Your task to perform on an android device: View the shopping cart on walmart. Search for bose soundlink on walmart, select the first entry, and add it to the cart. Image 0: 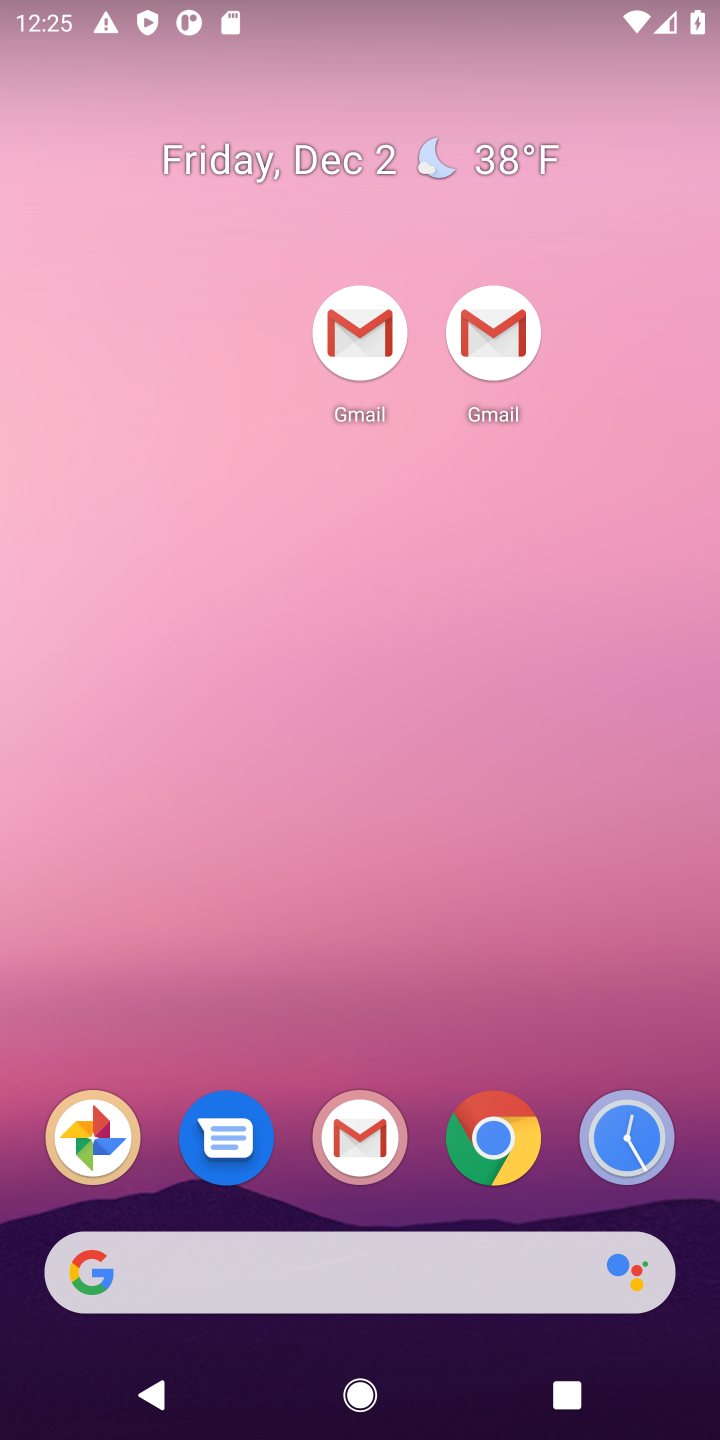
Step 0: drag from (429, 1182) to (462, 346)
Your task to perform on an android device: View the shopping cart on walmart. Search for bose soundlink on walmart, select the first entry, and add it to the cart. Image 1: 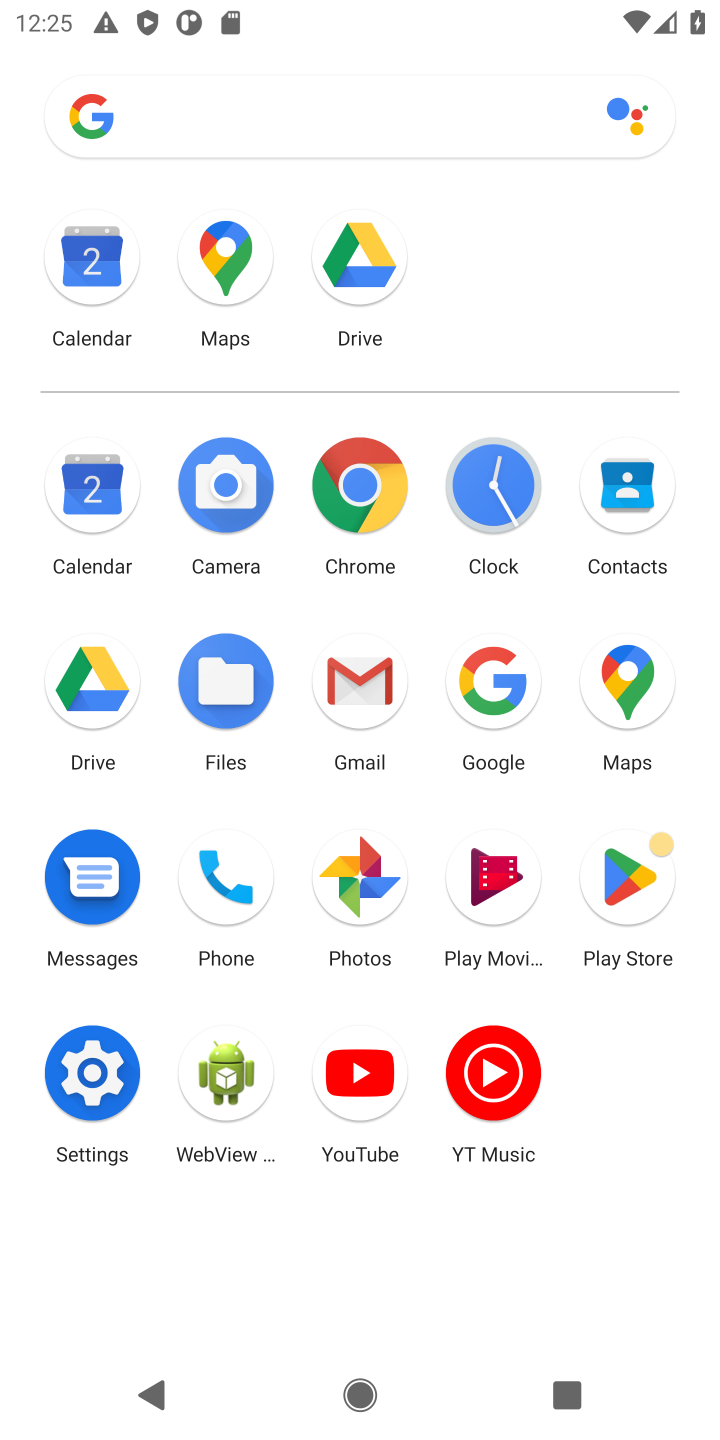
Step 1: click (501, 709)
Your task to perform on an android device: View the shopping cart on walmart. Search for bose soundlink on walmart, select the first entry, and add it to the cart. Image 2: 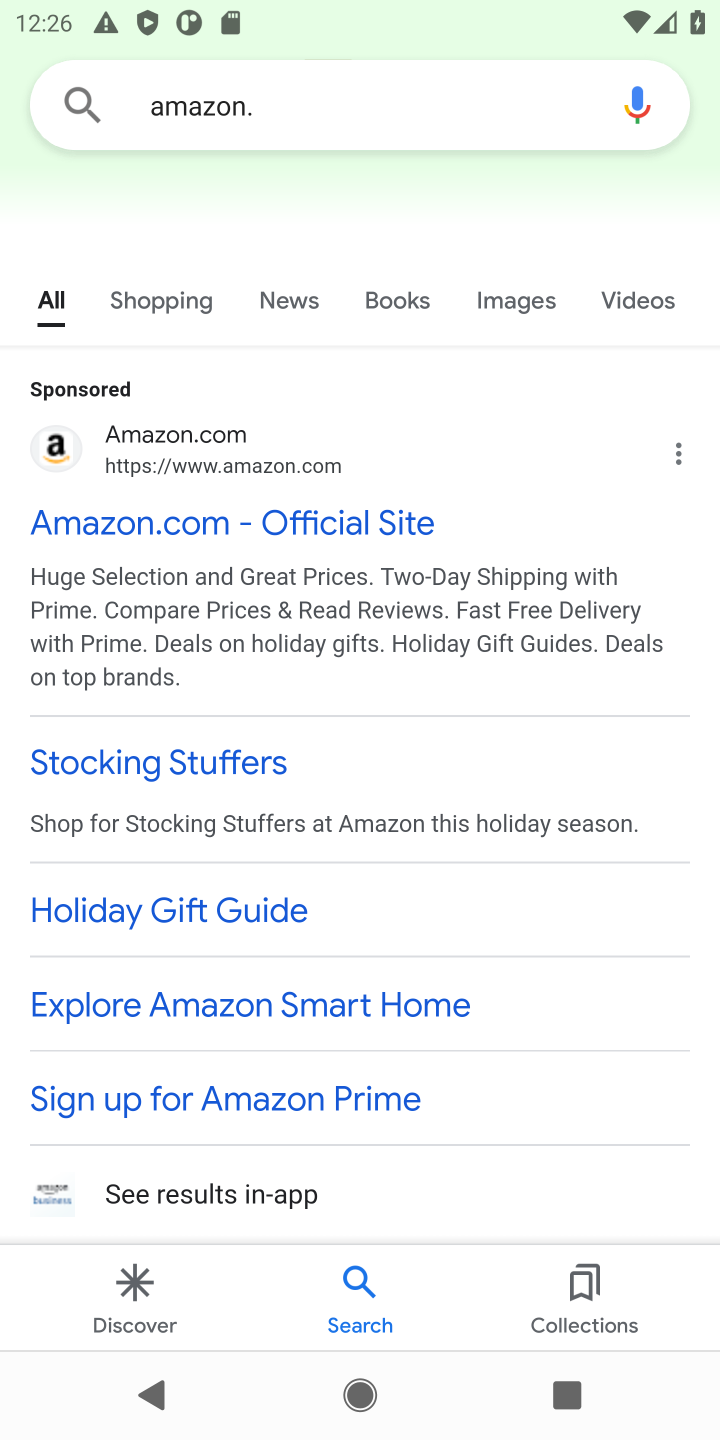
Step 2: click (341, 125)
Your task to perform on an android device: View the shopping cart on walmart. Search for bose soundlink on walmart, select the first entry, and add it to the cart. Image 3: 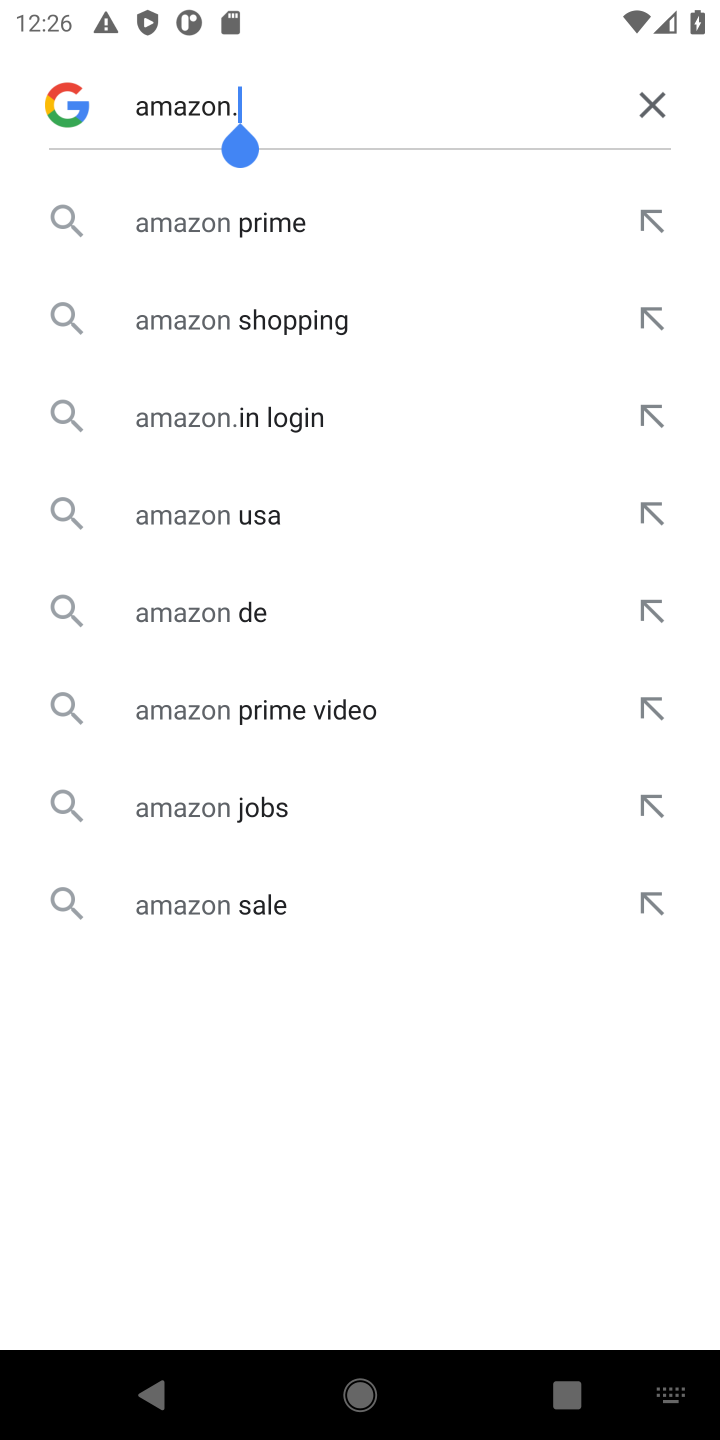
Step 3: click (650, 104)
Your task to perform on an android device: View the shopping cart on walmart. Search for bose soundlink on walmart, select the first entry, and add it to the cart. Image 4: 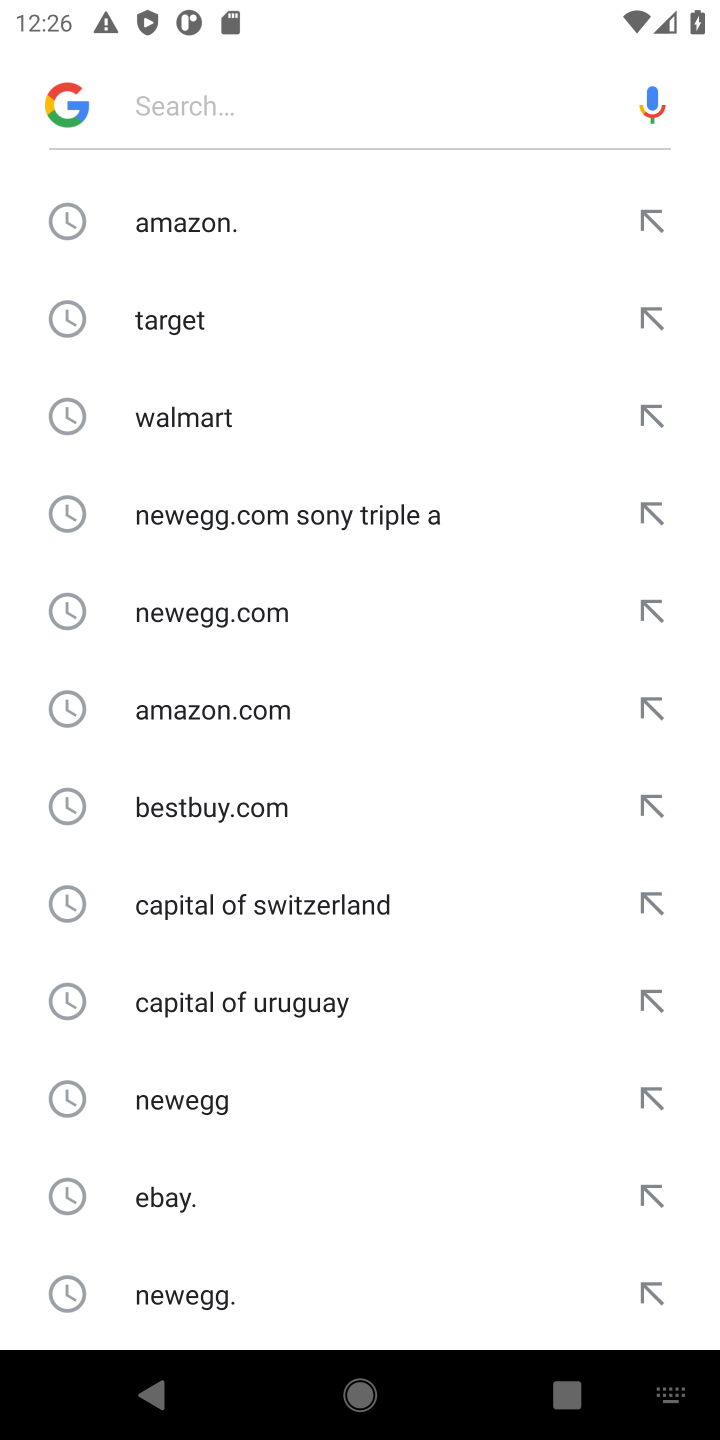
Step 4: type "walmart"
Your task to perform on an android device: View the shopping cart on walmart. Search for bose soundlink on walmart, select the first entry, and add it to the cart. Image 5: 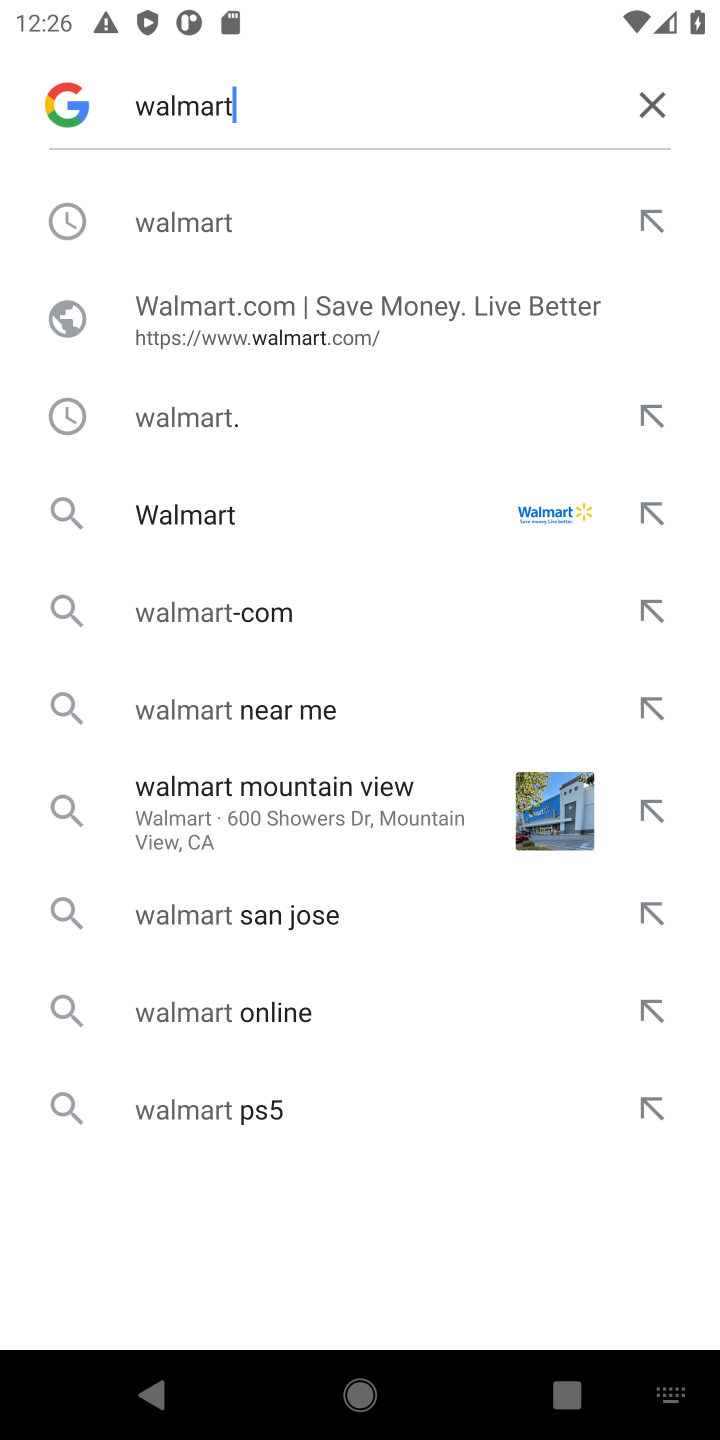
Step 5: click (306, 236)
Your task to perform on an android device: View the shopping cart on walmart. Search for bose soundlink on walmart, select the first entry, and add it to the cart. Image 6: 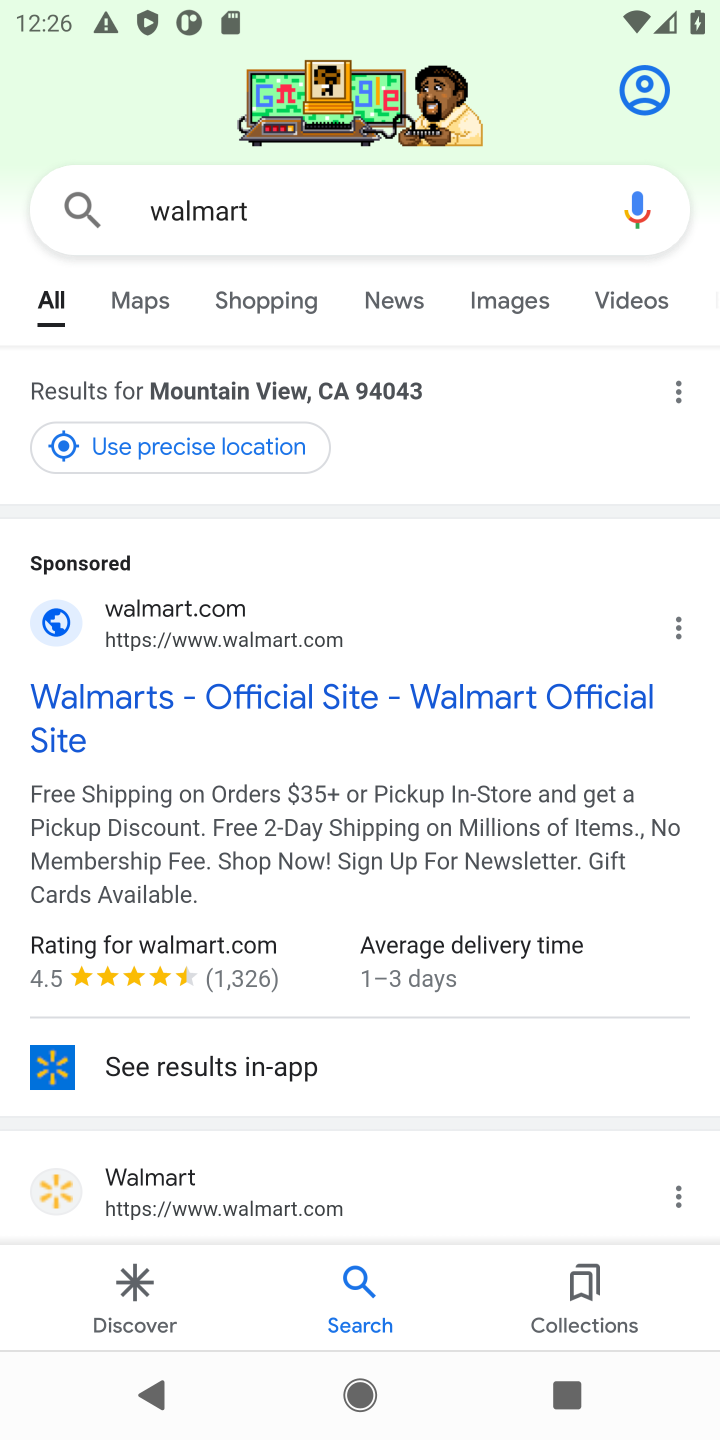
Step 6: click (286, 698)
Your task to perform on an android device: View the shopping cart on walmart. Search for bose soundlink on walmart, select the first entry, and add it to the cart. Image 7: 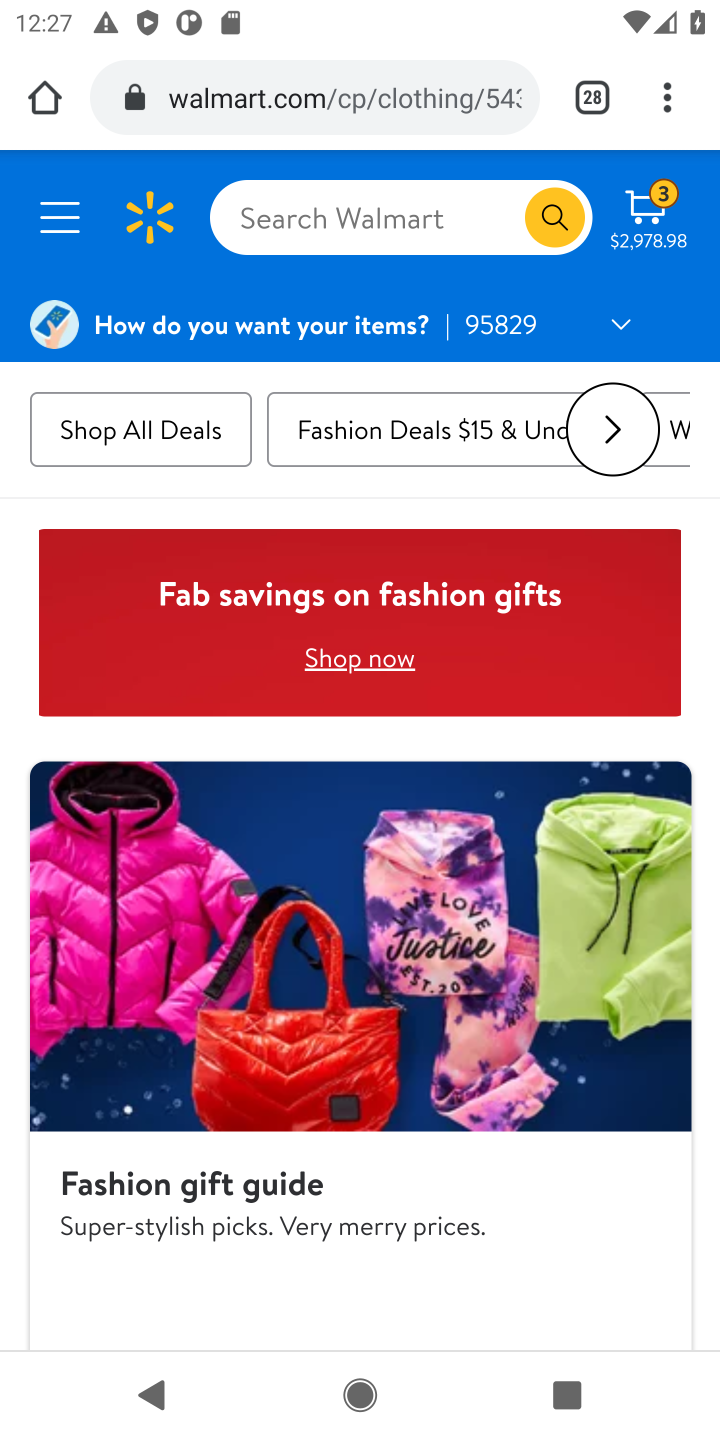
Step 7: click (429, 220)
Your task to perform on an android device: View the shopping cart on walmart. Search for bose soundlink on walmart, select the first entry, and add it to the cart. Image 8: 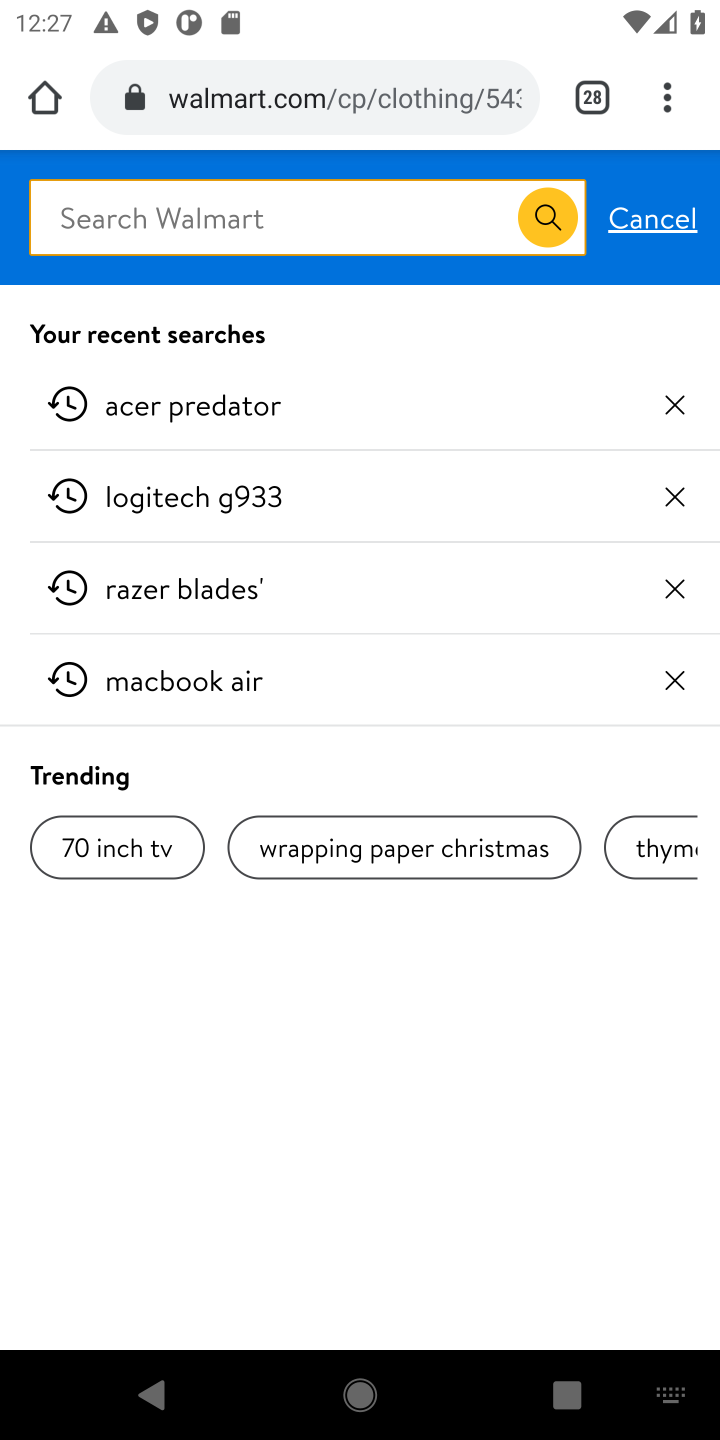
Step 8: type "bose soundlink"
Your task to perform on an android device: View the shopping cart on walmart. Search for bose soundlink on walmart, select the first entry, and add it to the cart. Image 9: 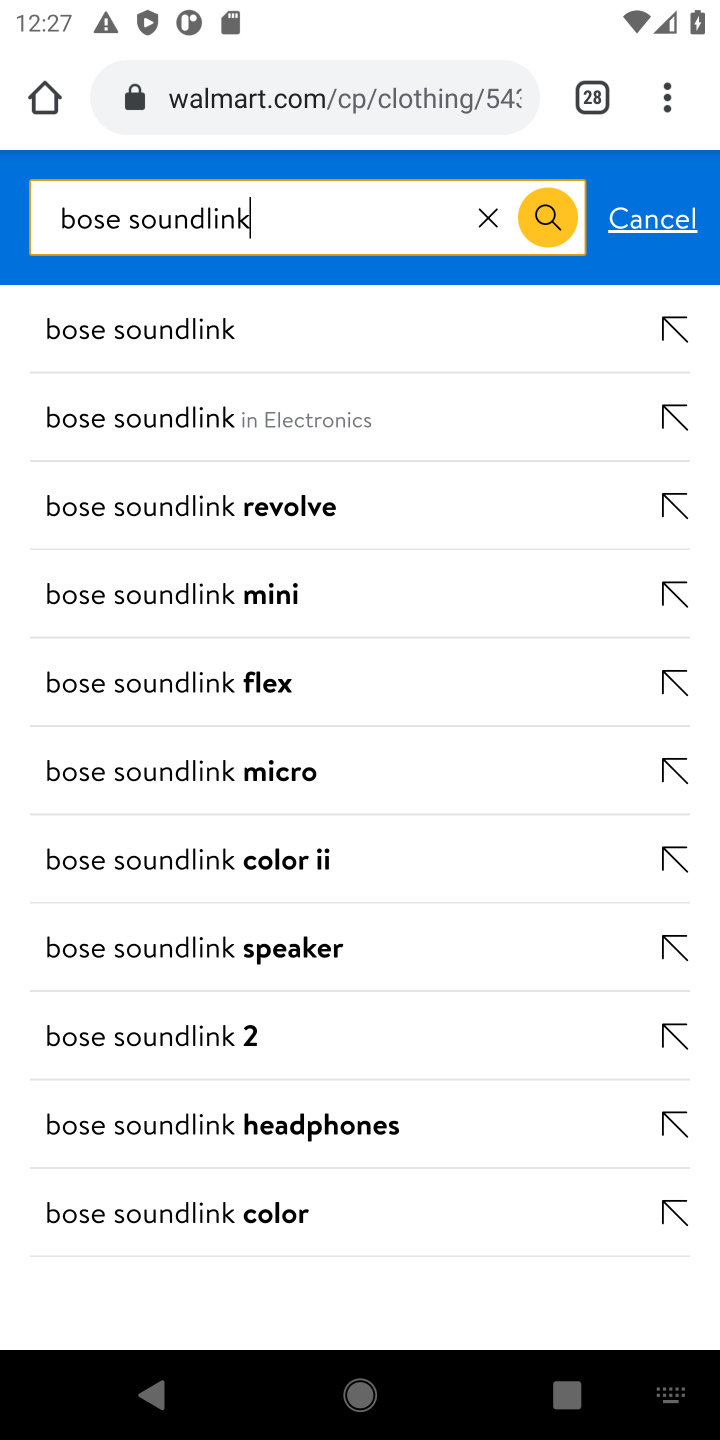
Step 9: click (355, 356)
Your task to perform on an android device: View the shopping cart on walmart. Search for bose soundlink on walmart, select the first entry, and add it to the cart. Image 10: 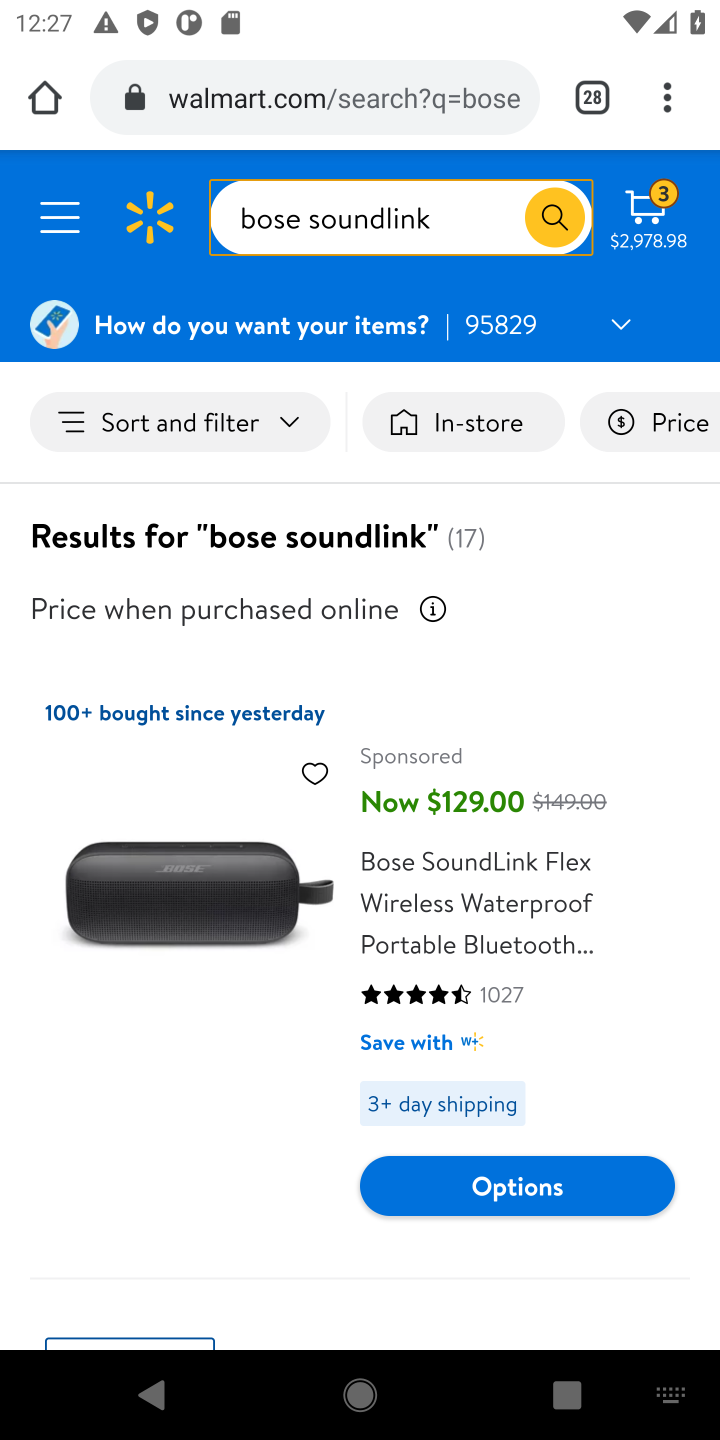
Step 10: drag from (359, 1031) to (334, 830)
Your task to perform on an android device: View the shopping cart on walmart. Search for bose soundlink on walmart, select the first entry, and add it to the cart. Image 11: 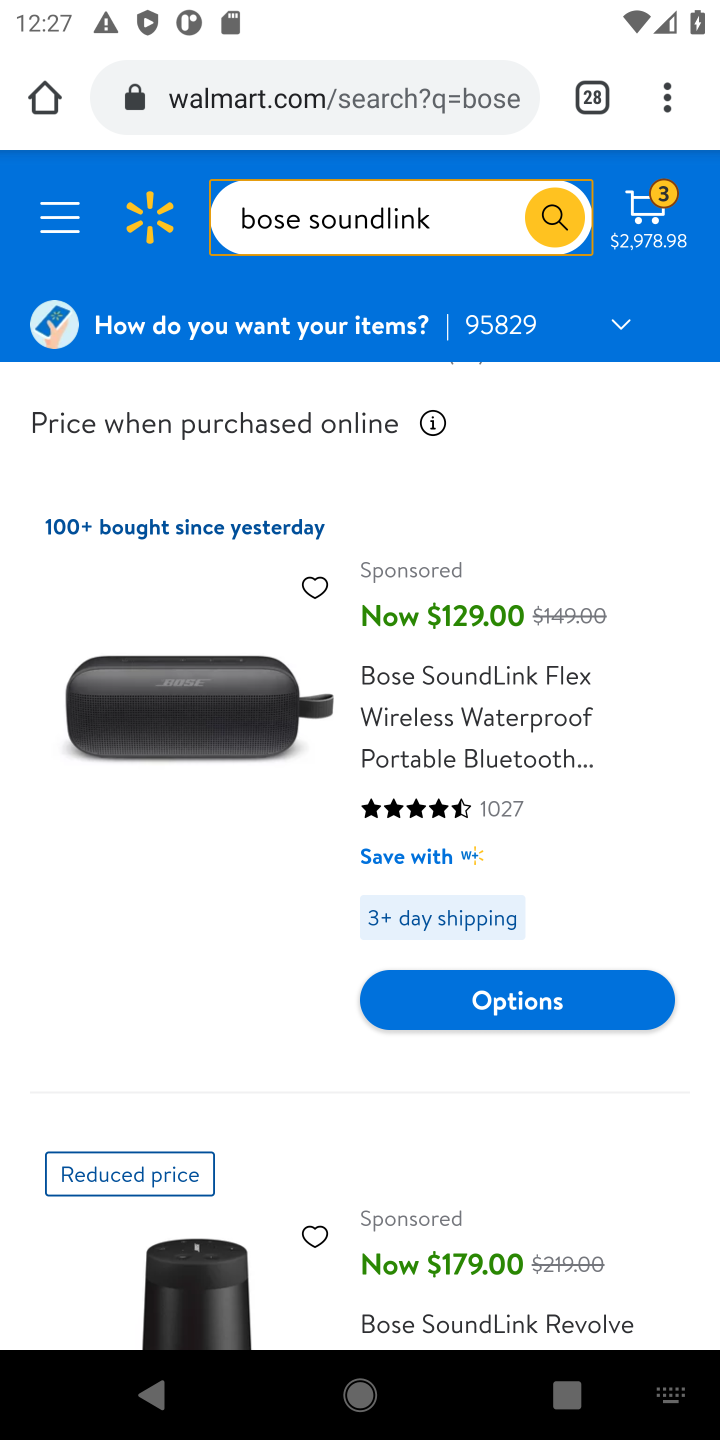
Step 11: drag from (342, 924) to (376, 572)
Your task to perform on an android device: View the shopping cart on walmart. Search for bose soundlink on walmart, select the first entry, and add it to the cart. Image 12: 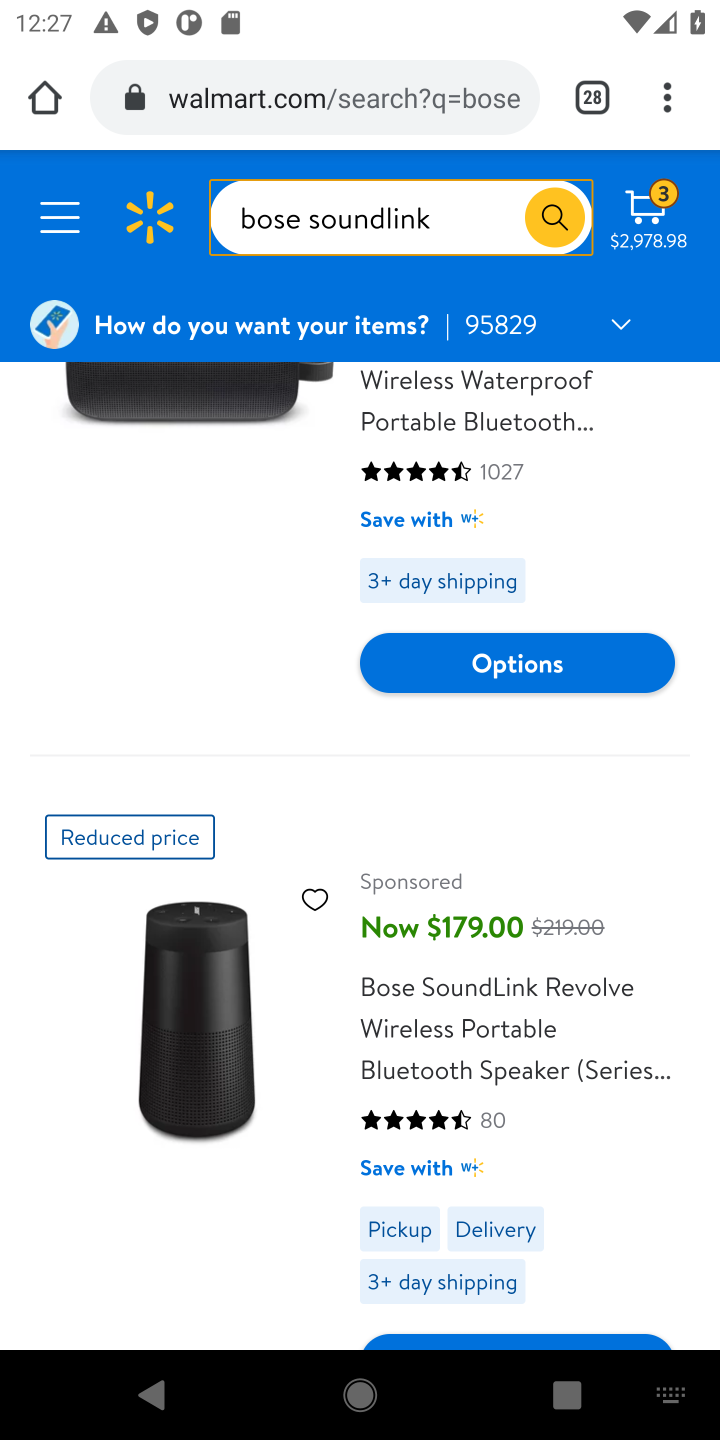
Step 12: drag from (385, 951) to (389, 413)
Your task to perform on an android device: View the shopping cart on walmart. Search for bose soundlink on walmart, select the first entry, and add it to the cart. Image 13: 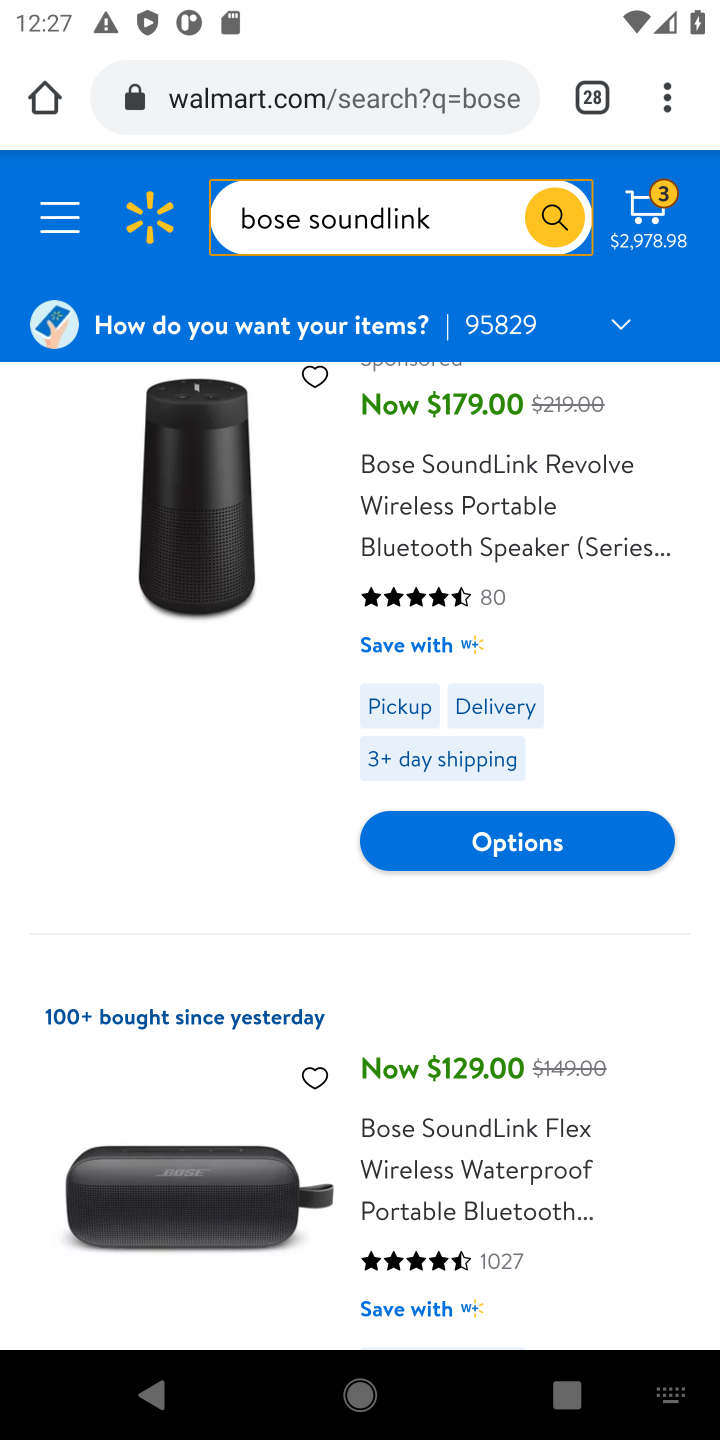
Step 13: drag from (417, 909) to (396, 453)
Your task to perform on an android device: View the shopping cart on walmart. Search for bose soundlink on walmart, select the first entry, and add it to the cart. Image 14: 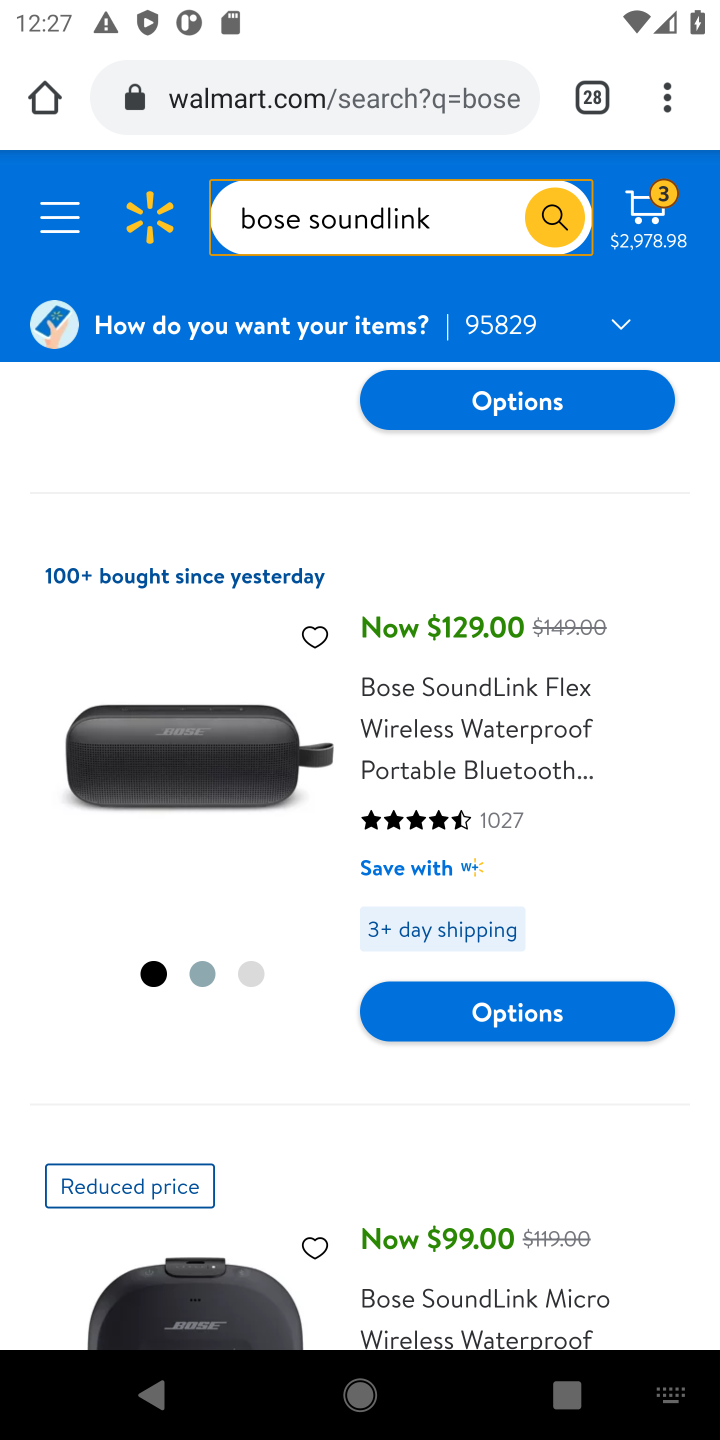
Step 14: drag from (386, 561) to (383, 1107)
Your task to perform on an android device: View the shopping cart on walmart. Search for bose soundlink on walmart, select the first entry, and add it to the cart. Image 15: 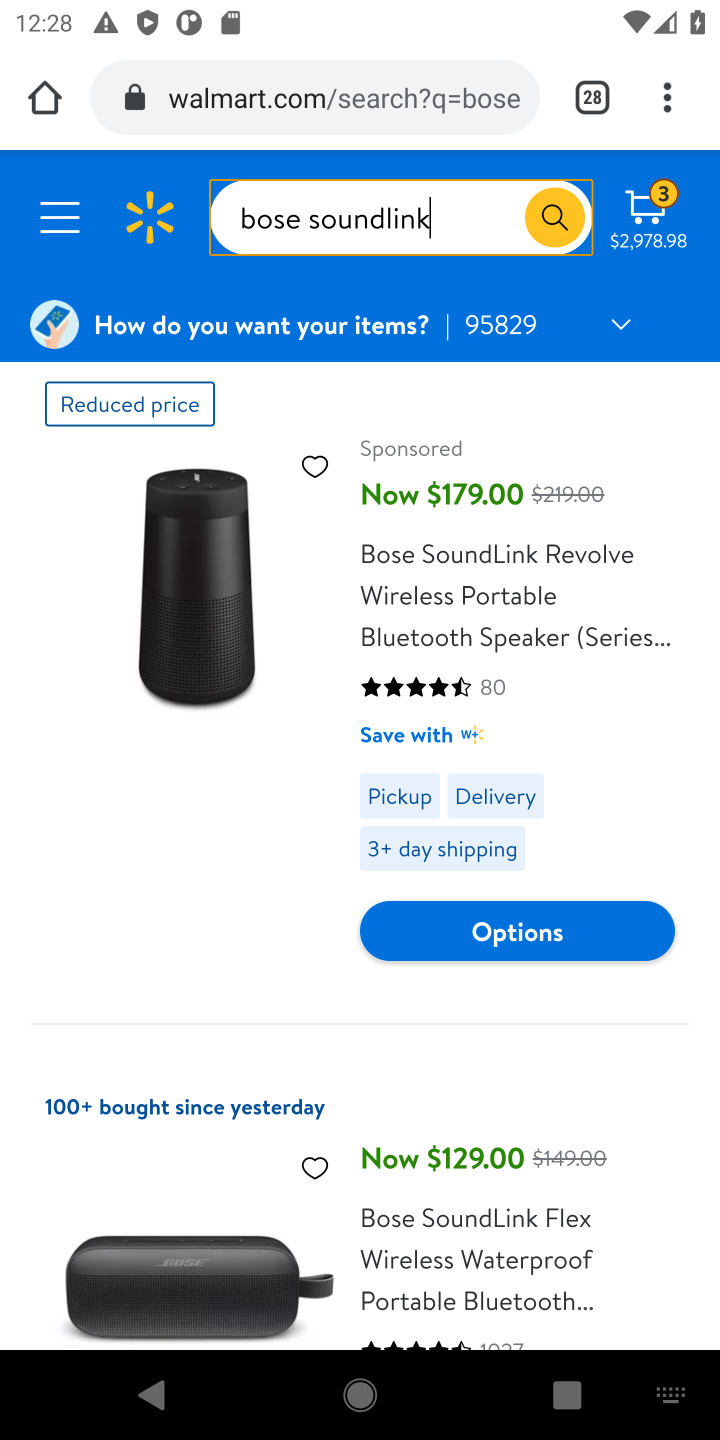
Step 15: drag from (477, 627) to (449, 958)
Your task to perform on an android device: View the shopping cart on walmart. Search for bose soundlink on walmart, select the first entry, and add it to the cart. Image 16: 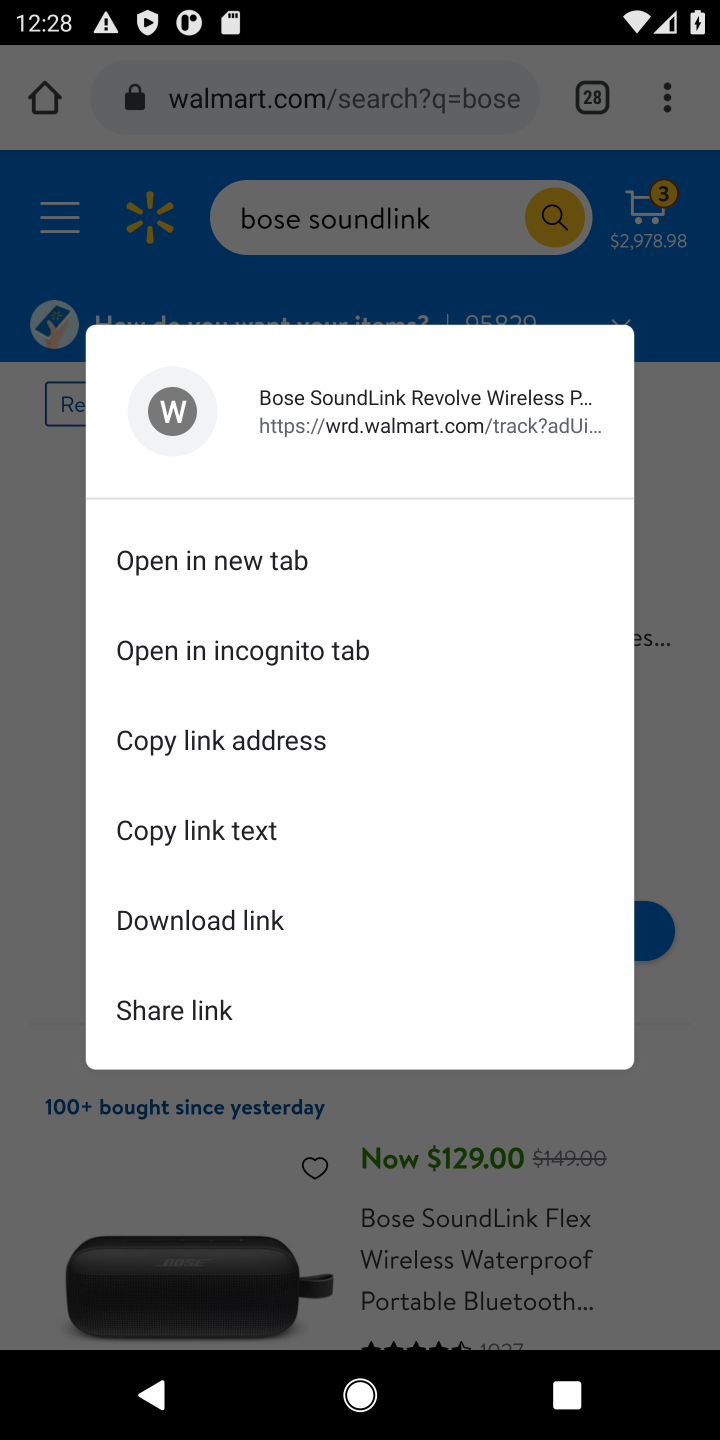
Step 16: click (66, 766)
Your task to perform on an android device: View the shopping cart on walmart. Search for bose soundlink on walmart, select the first entry, and add it to the cart. Image 17: 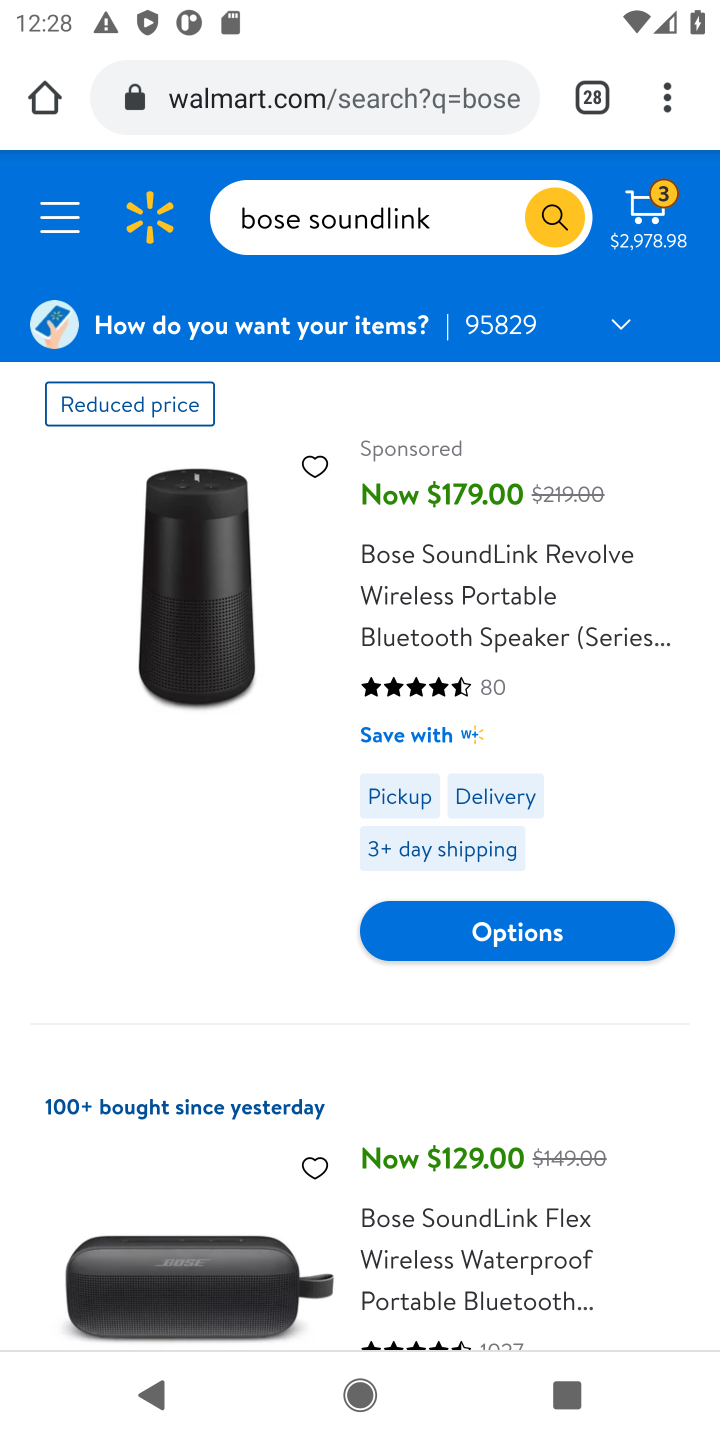
Step 17: drag from (304, 430) to (317, 850)
Your task to perform on an android device: View the shopping cart on walmart. Search for bose soundlink on walmart, select the first entry, and add it to the cart. Image 18: 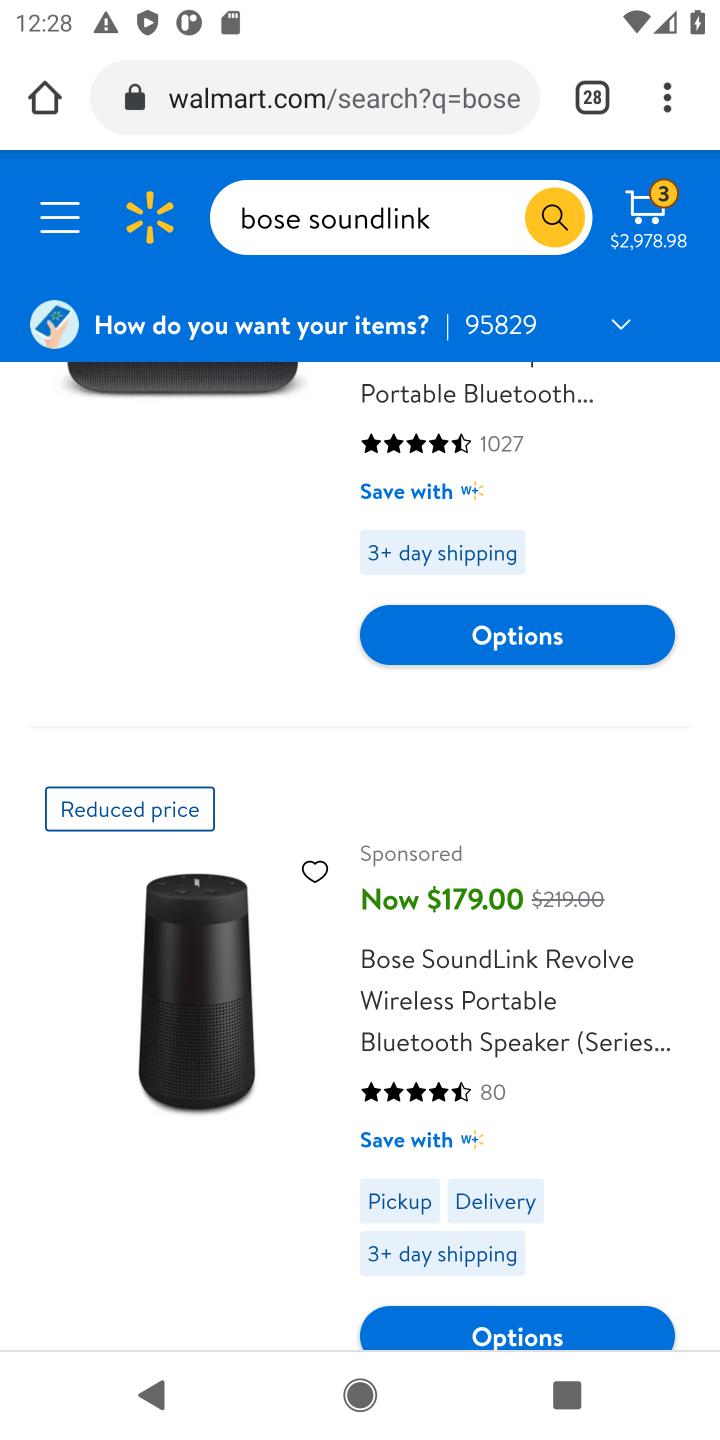
Step 18: drag from (441, 561) to (459, 817)
Your task to perform on an android device: View the shopping cart on walmart. Search for bose soundlink on walmart, select the first entry, and add it to the cart. Image 19: 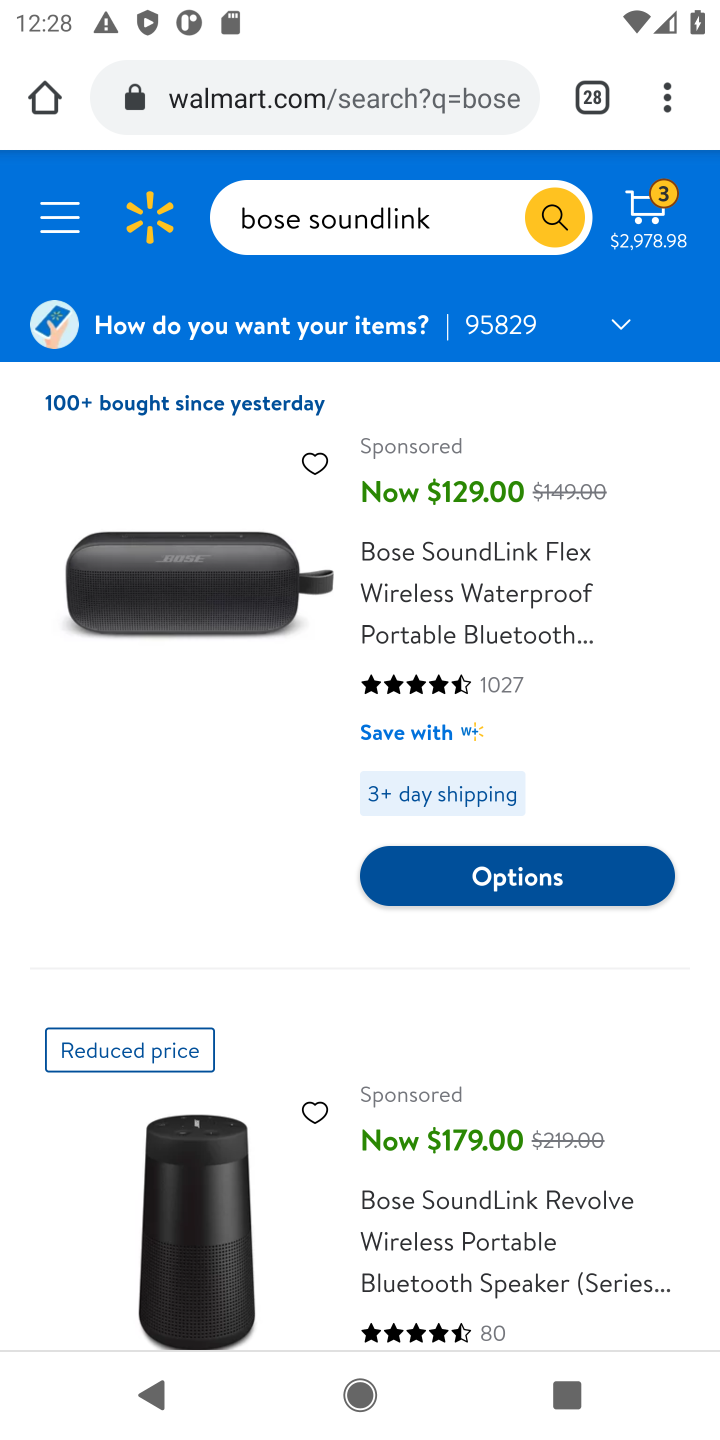
Step 19: click (512, 874)
Your task to perform on an android device: View the shopping cart on walmart. Search for bose soundlink on walmart, select the first entry, and add it to the cart. Image 20: 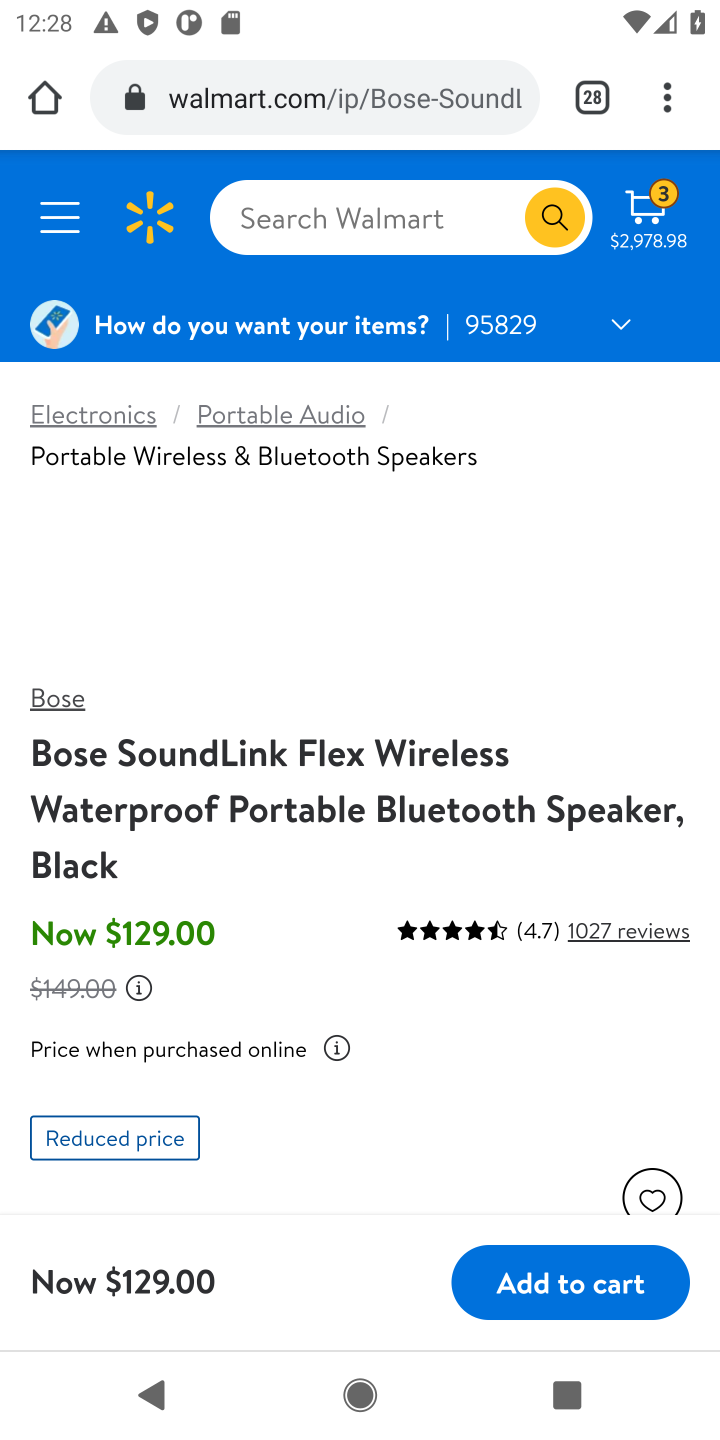
Step 20: click (562, 1294)
Your task to perform on an android device: View the shopping cart on walmart. Search for bose soundlink on walmart, select the first entry, and add it to the cart. Image 21: 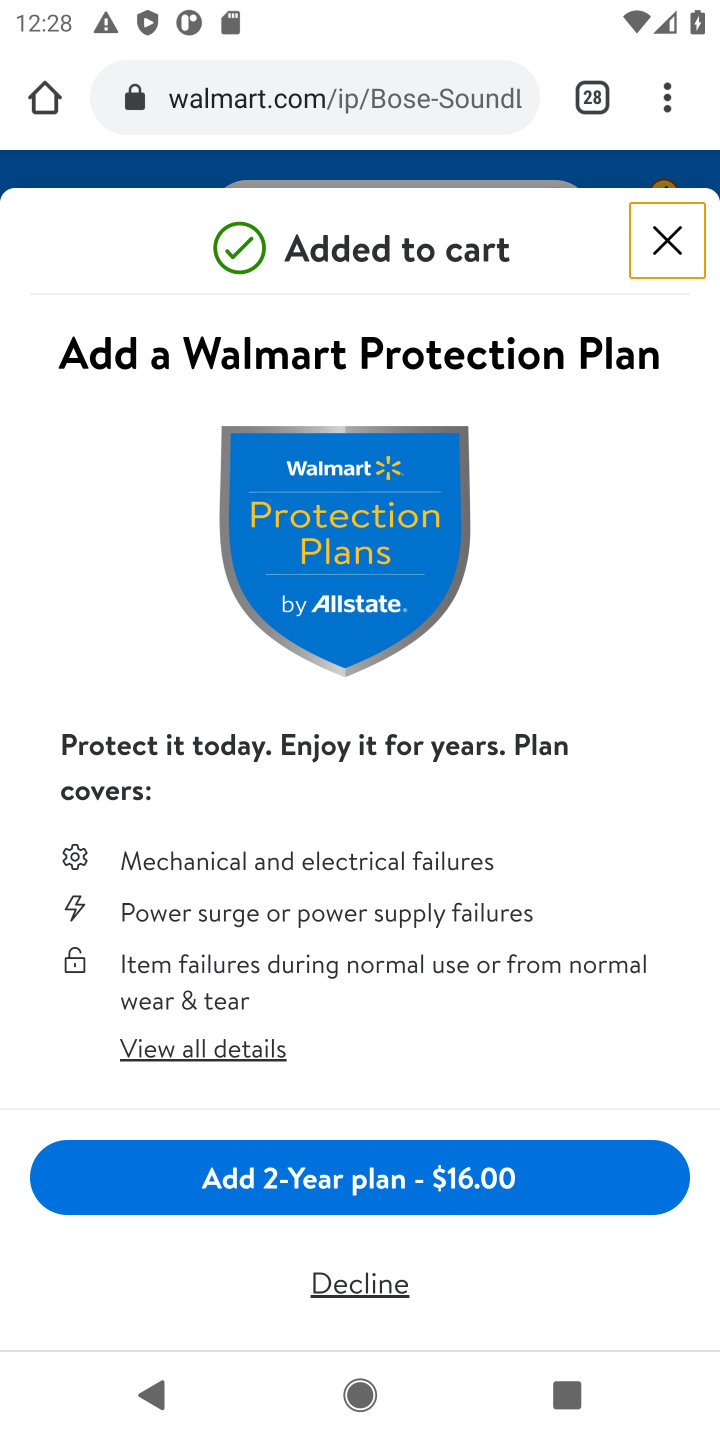
Step 21: task complete